Your task to perform on an android device: find snoozed emails in the gmail app Image 0: 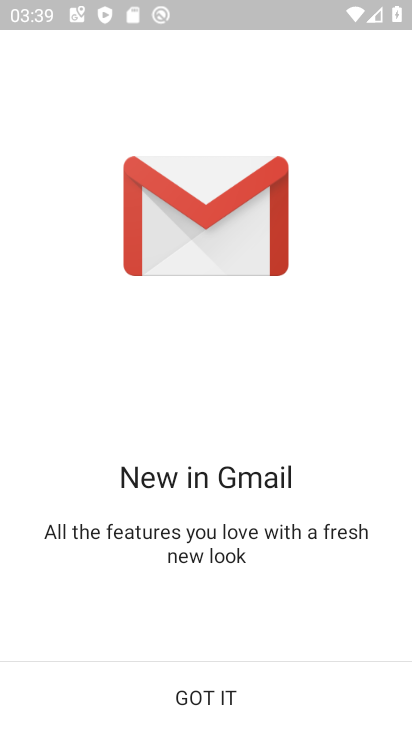
Step 0: press back button
Your task to perform on an android device: find snoozed emails in the gmail app Image 1: 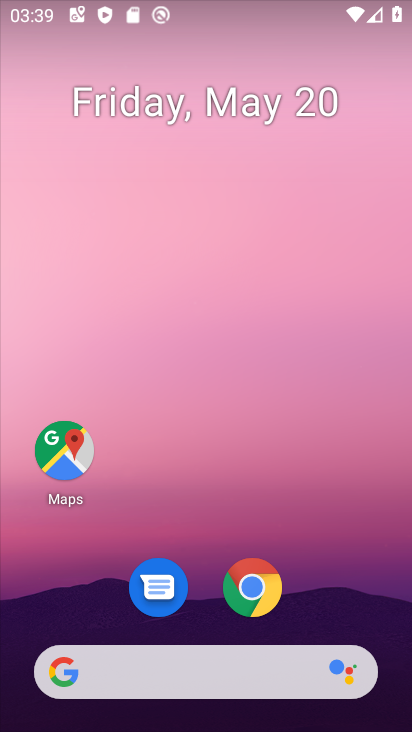
Step 1: drag from (336, 527) to (254, 34)
Your task to perform on an android device: find snoozed emails in the gmail app Image 2: 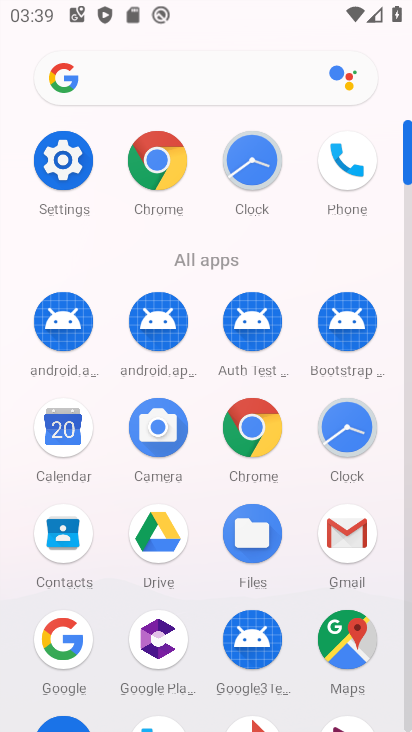
Step 2: drag from (19, 527) to (34, 160)
Your task to perform on an android device: find snoozed emails in the gmail app Image 3: 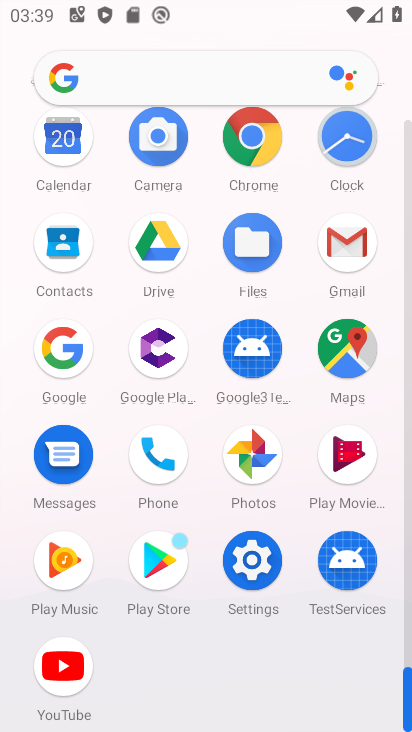
Step 3: drag from (14, 578) to (20, 273)
Your task to perform on an android device: find snoozed emails in the gmail app Image 4: 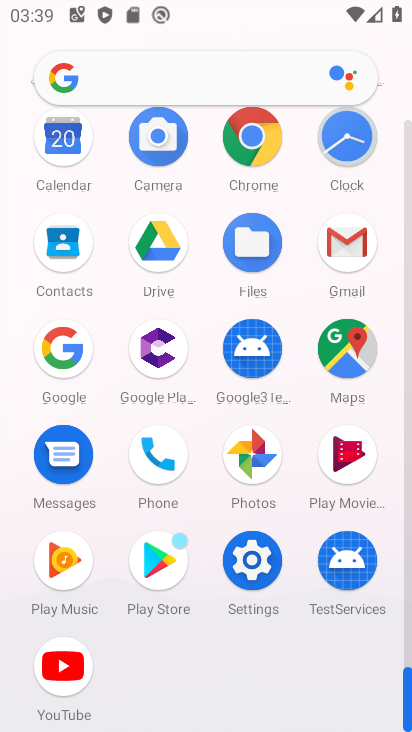
Step 4: click (344, 238)
Your task to perform on an android device: find snoozed emails in the gmail app Image 5: 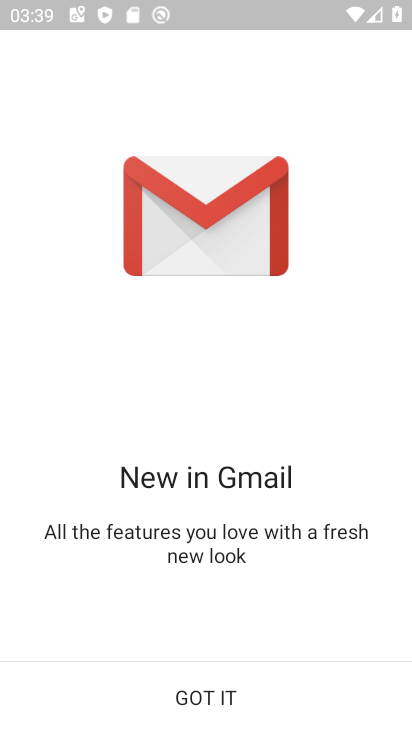
Step 5: click (188, 684)
Your task to perform on an android device: find snoozed emails in the gmail app Image 6: 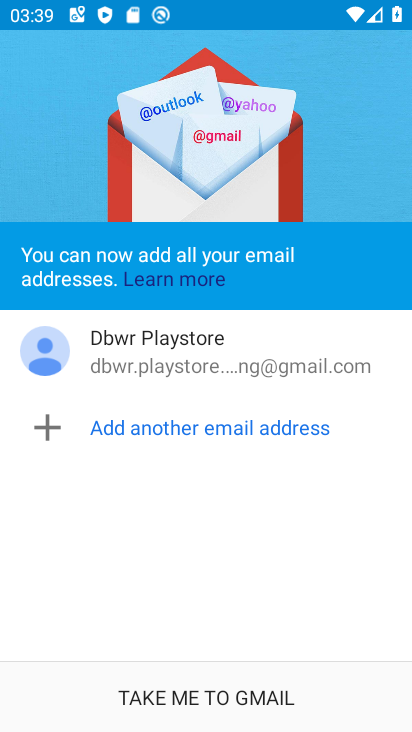
Step 6: click (209, 698)
Your task to perform on an android device: find snoozed emails in the gmail app Image 7: 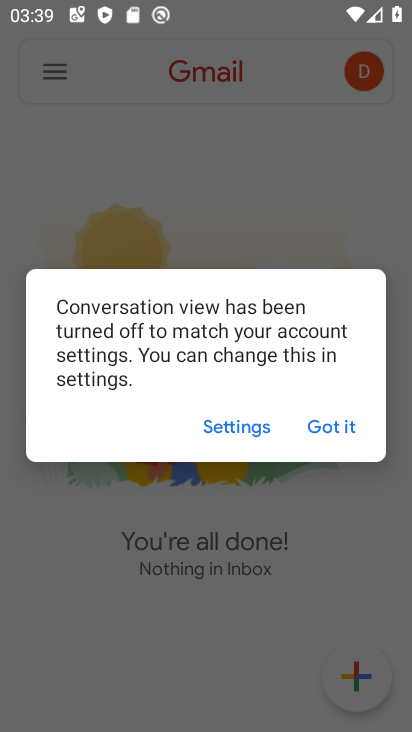
Step 7: click (329, 432)
Your task to perform on an android device: find snoozed emails in the gmail app Image 8: 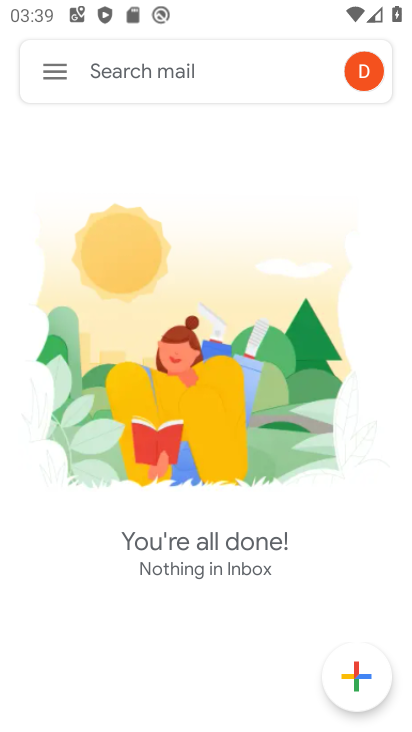
Step 8: click (48, 63)
Your task to perform on an android device: find snoozed emails in the gmail app Image 9: 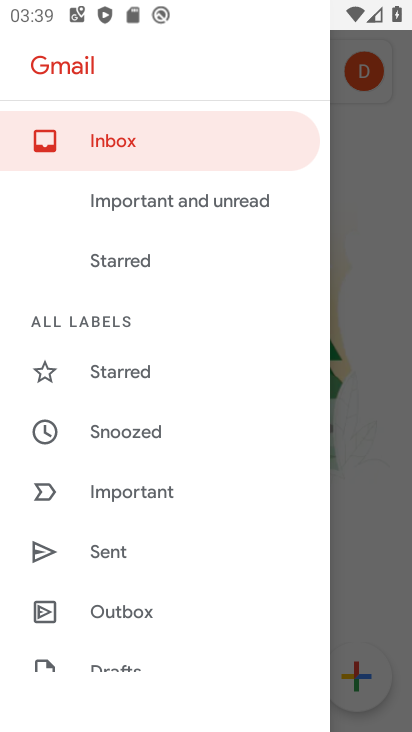
Step 9: click (155, 424)
Your task to perform on an android device: find snoozed emails in the gmail app Image 10: 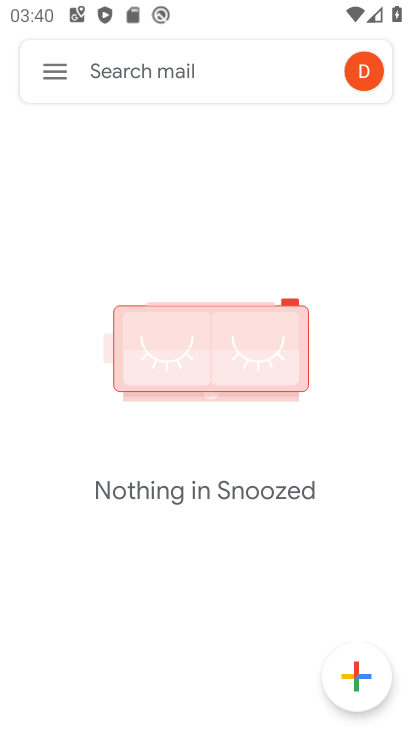
Step 10: task complete